Your task to perform on an android device: check the backup settings in the google photos Image 0: 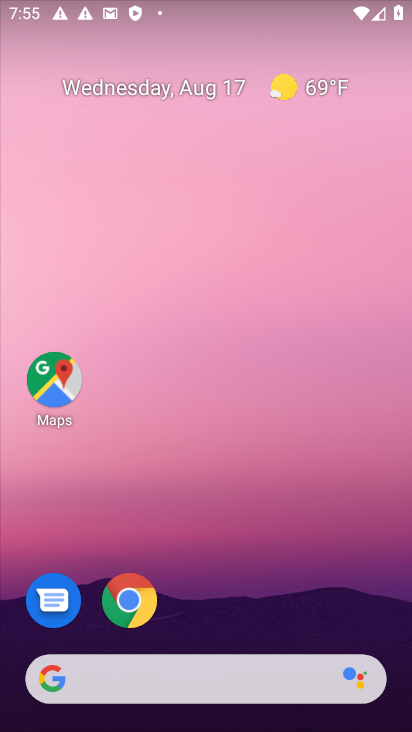
Step 0: press home button
Your task to perform on an android device: check the backup settings in the google photos Image 1: 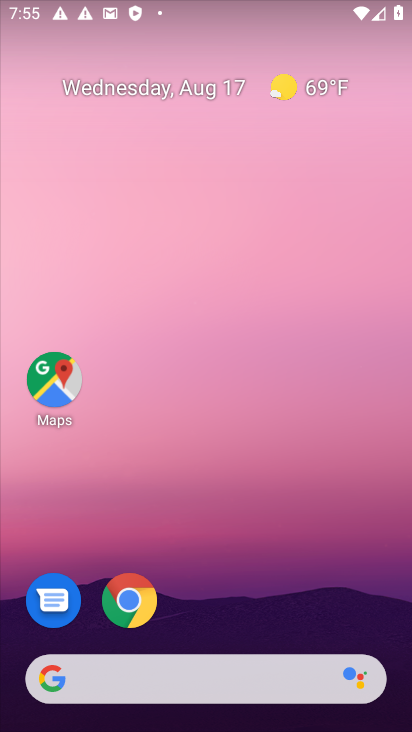
Step 1: drag from (244, 589) to (255, 154)
Your task to perform on an android device: check the backup settings in the google photos Image 2: 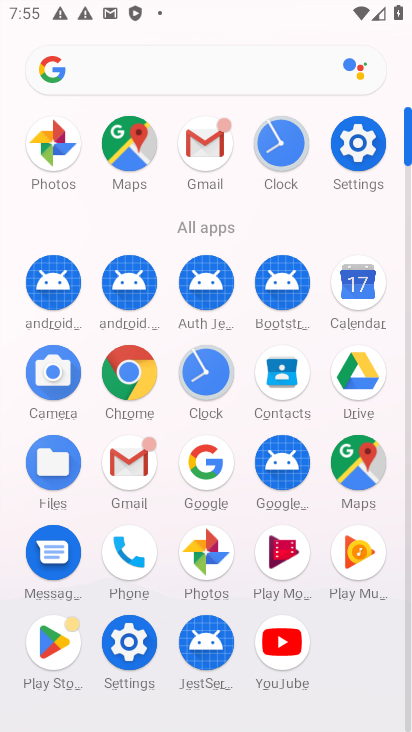
Step 2: click (210, 558)
Your task to perform on an android device: check the backup settings in the google photos Image 3: 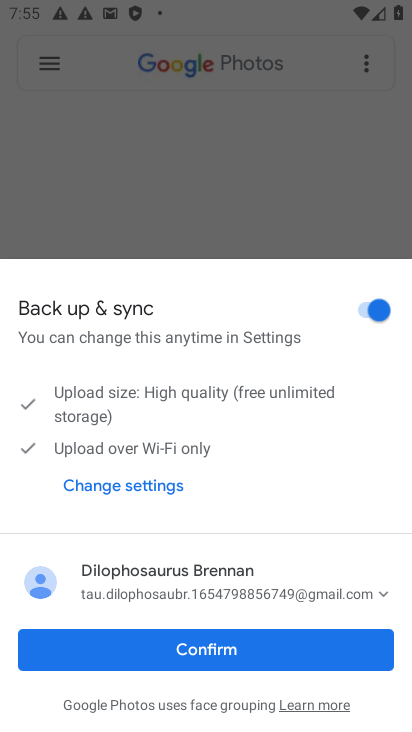
Step 3: click (230, 665)
Your task to perform on an android device: check the backup settings in the google photos Image 4: 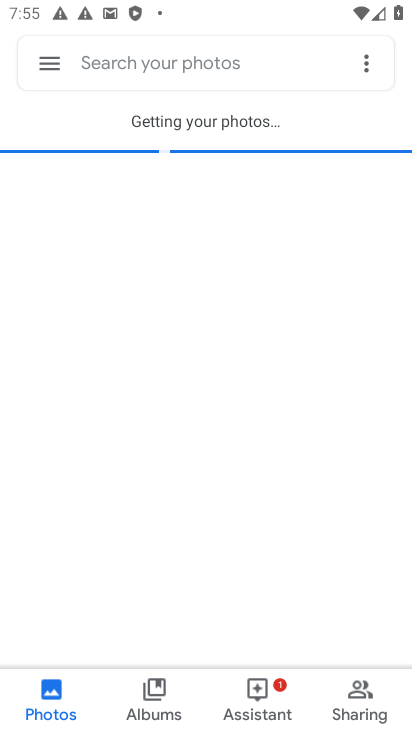
Step 4: click (51, 58)
Your task to perform on an android device: check the backup settings in the google photos Image 5: 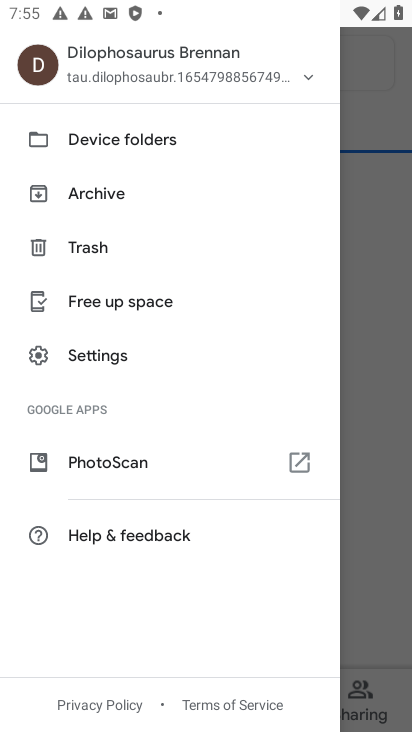
Step 5: click (99, 349)
Your task to perform on an android device: check the backup settings in the google photos Image 6: 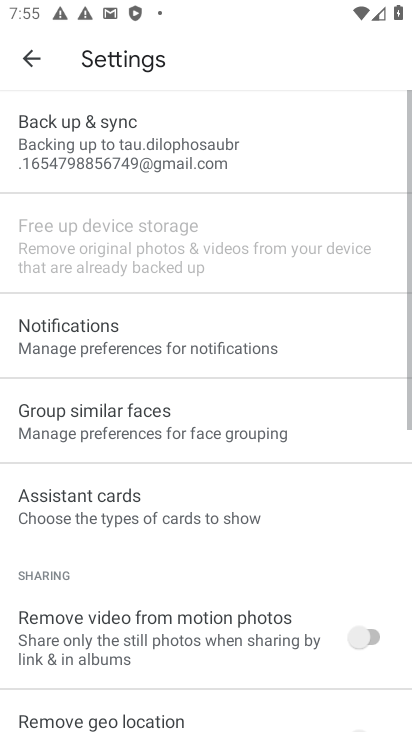
Step 6: click (147, 161)
Your task to perform on an android device: check the backup settings in the google photos Image 7: 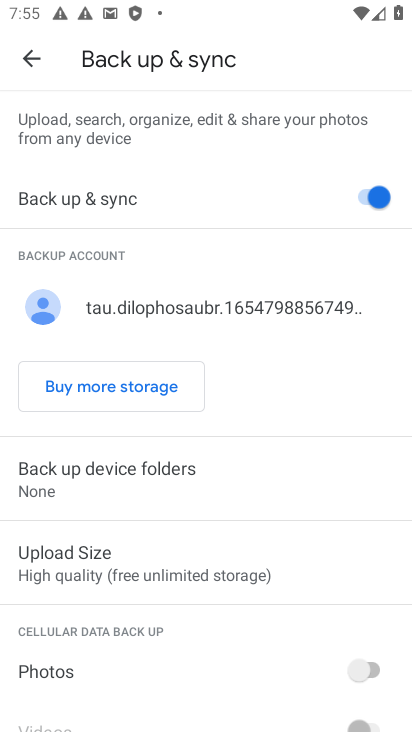
Step 7: task complete